Your task to perform on an android device: What's on my calendar today? Image 0: 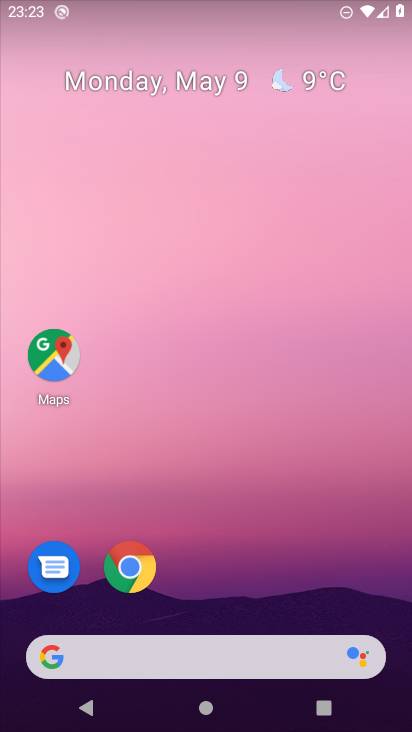
Step 0: drag from (222, 616) to (255, 63)
Your task to perform on an android device: What's on my calendar today? Image 1: 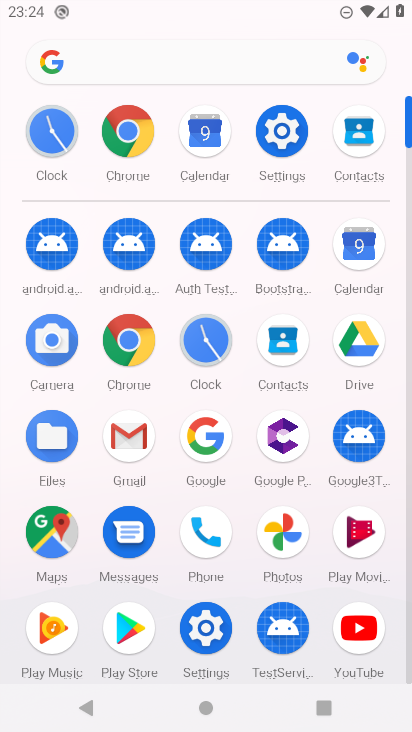
Step 1: click (356, 239)
Your task to perform on an android device: What's on my calendar today? Image 2: 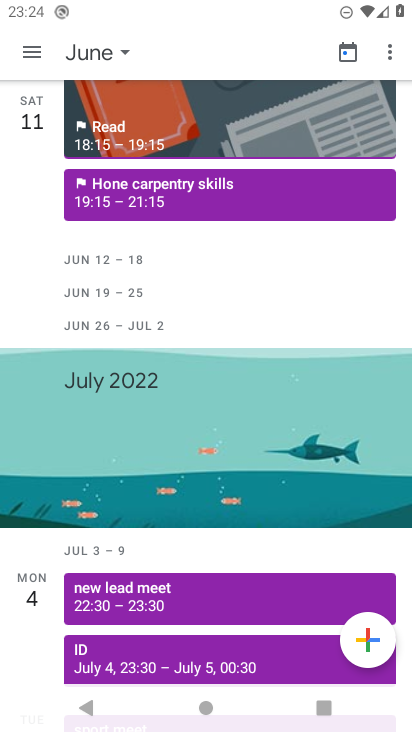
Step 2: click (24, 55)
Your task to perform on an android device: What's on my calendar today? Image 3: 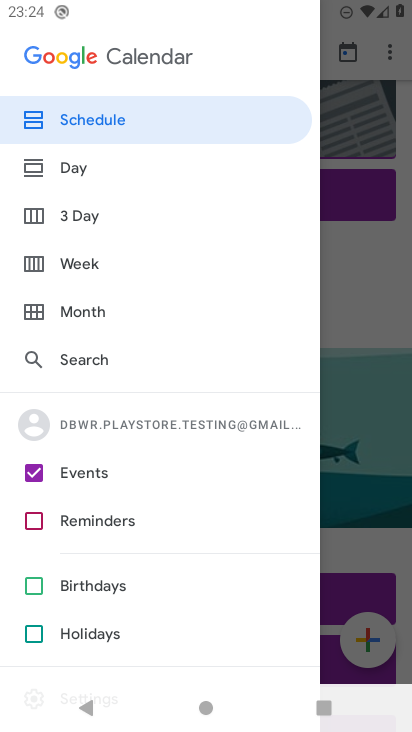
Step 3: click (67, 170)
Your task to perform on an android device: What's on my calendar today? Image 4: 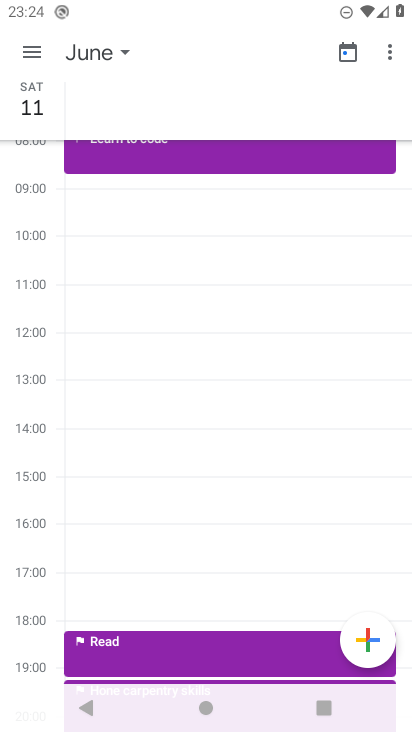
Step 4: click (117, 52)
Your task to perform on an android device: What's on my calendar today? Image 5: 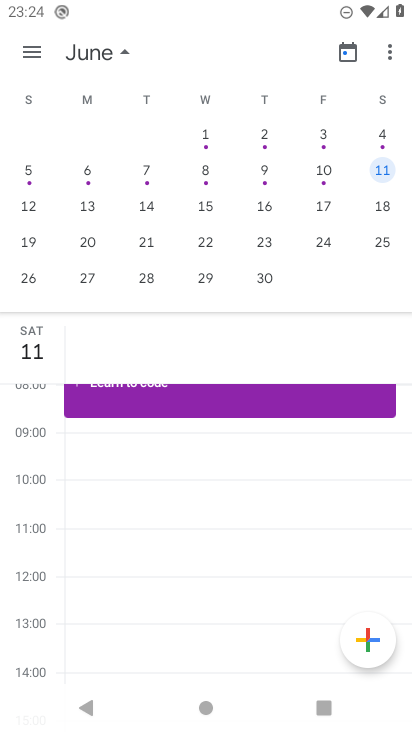
Step 5: drag from (31, 223) to (397, 217)
Your task to perform on an android device: What's on my calendar today? Image 6: 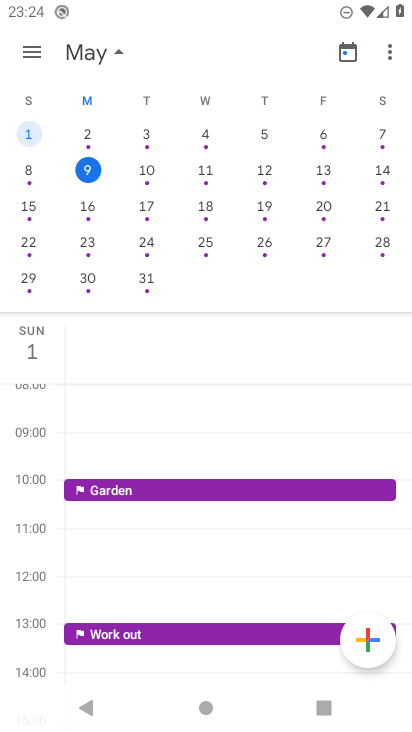
Step 6: click (85, 165)
Your task to perform on an android device: What's on my calendar today? Image 7: 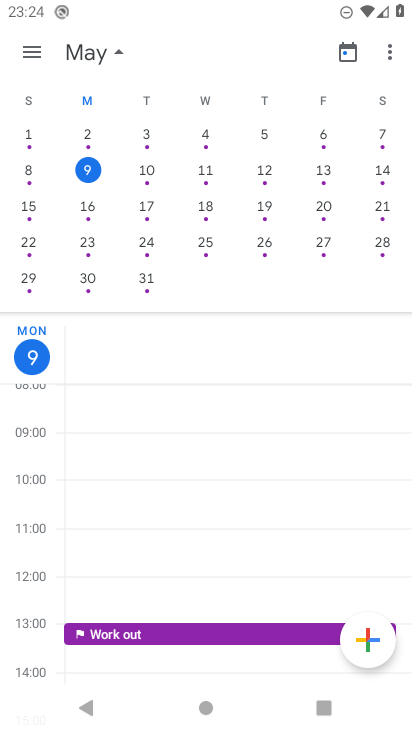
Step 7: task complete